Your task to perform on an android device: Do I have any events tomorrow? Image 0: 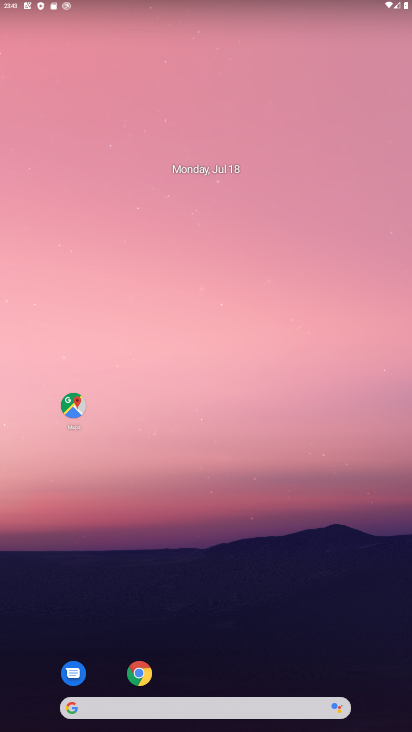
Step 0: drag from (284, 668) to (216, 203)
Your task to perform on an android device: Do I have any events tomorrow? Image 1: 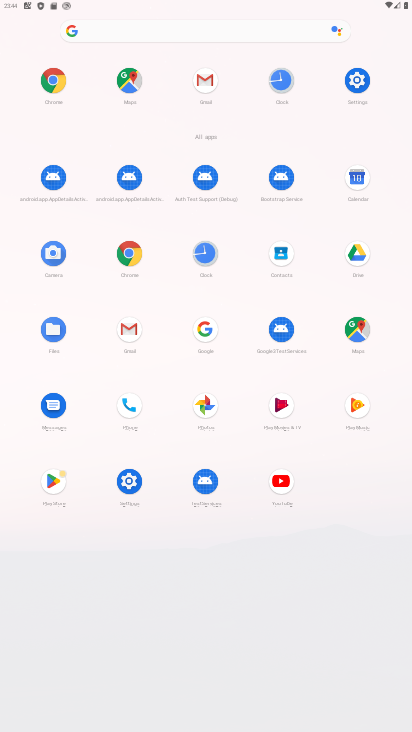
Step 1: click (60, 75)
Your task to perform on an android device: Do I have any events tomorrow? Image 2: 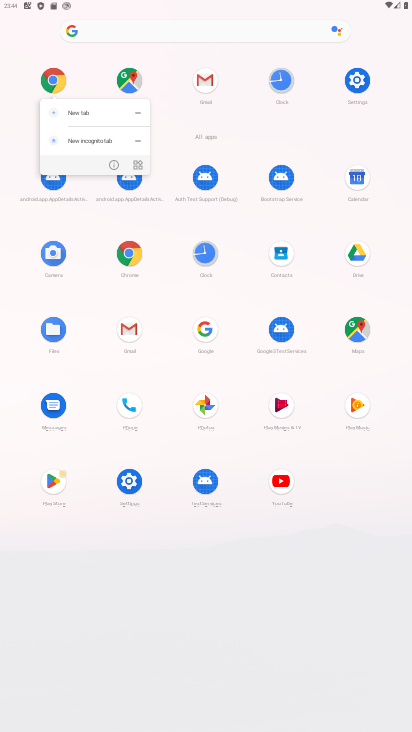
Step 2: click (52, 79)
Your task to perform on an android device: Do I have any events tomorrow? Image 3: 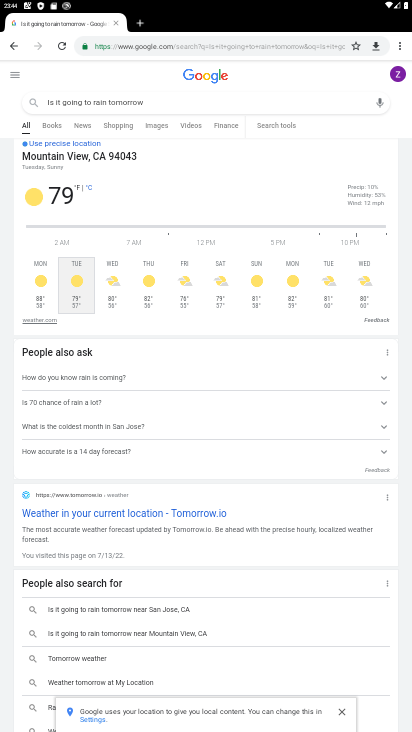
Step 3: click (141, 24)
Your task to perform on an android device: Do I have any events tomorrow? Image 4: 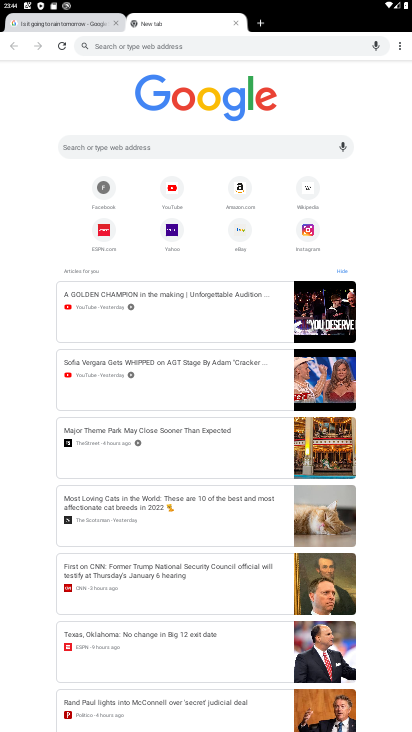
Step 4: click (189, 135)
Your task to perform on an android device: Do I have any events tomorrow? Image 5: 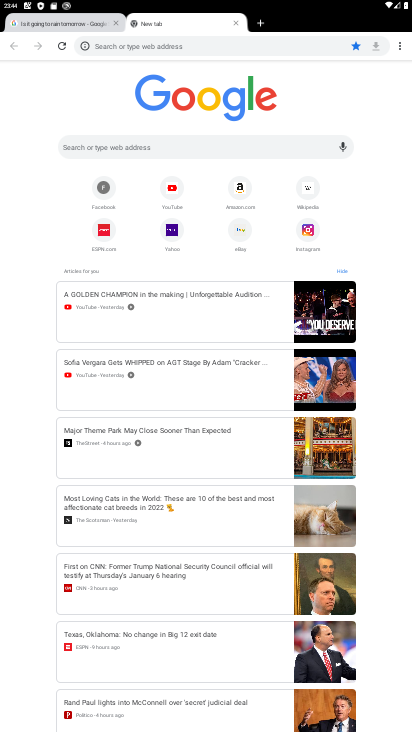
Step 5: type "Do I have any events tomorrow "
Your task to perform on an android device: Do I have any events tomorrow? Image 6: 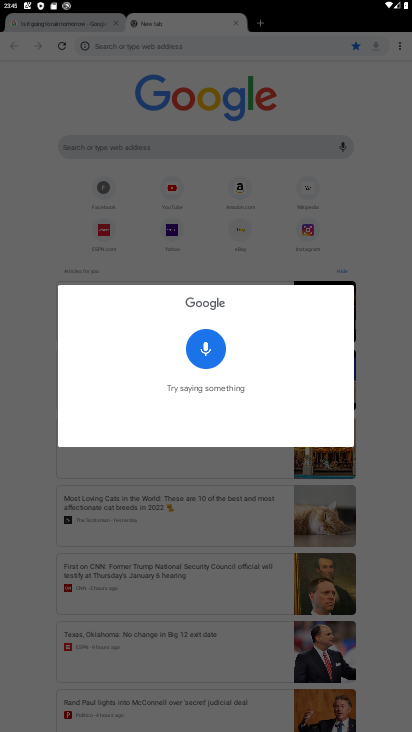
Step 6: click (373, 195)
Your task to perform on an android device: Do I have any events tomorrow? Image 7: 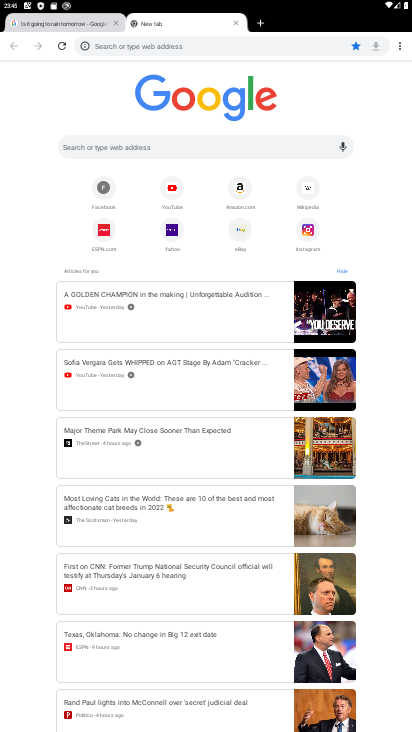
Step 7: click (169, 141)
Your task to perform on an android device: Do I have any events tomorrow? Image 8: 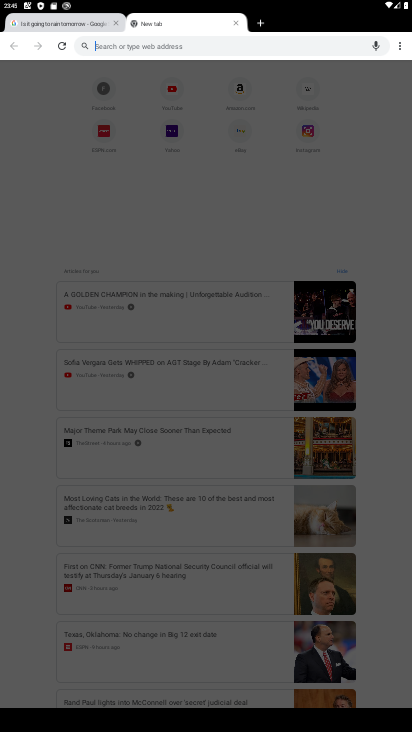
Step 8: type "Do I have any events tomorrow "
Your task to perform on an android device: Do I have any events tomorrow? Image 9: 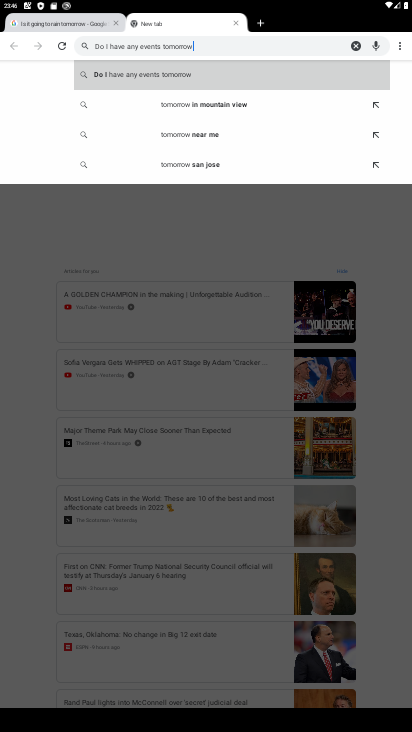
Step 9: click (175, 75)
Your task to perform on an android device: Do I have any events tomorrow? Image 10: 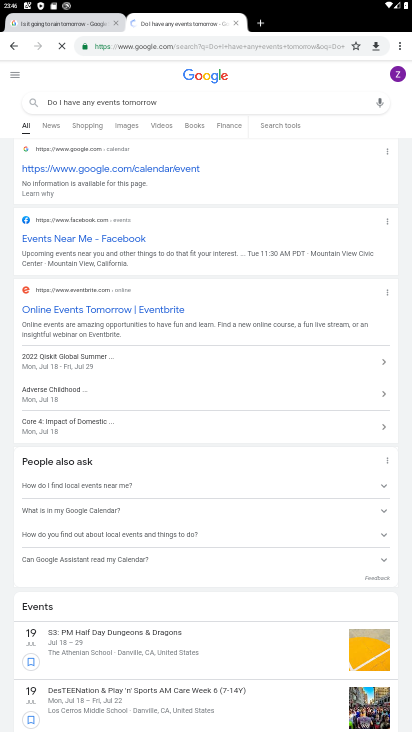
Step 10: task complete